Your task to perform on an android device: turn on javascript in the chrome app Image 0: 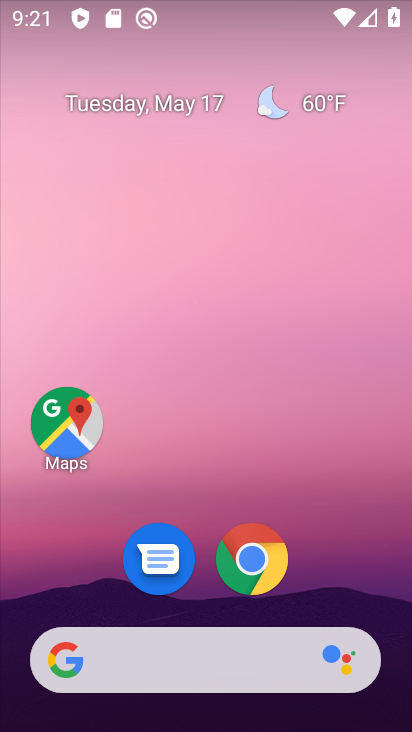
Step 0: click (256, 559)
Your task to perform on an android device: turn on javascript in the chrome app Image 1: 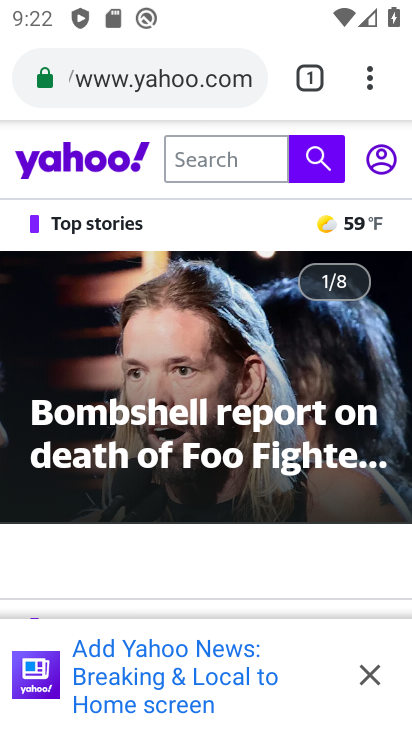
Step 1: drag from (374, 71) to (229, 604)
Your task to perform on an android device: turn on javascript in the chrome app Image 2: 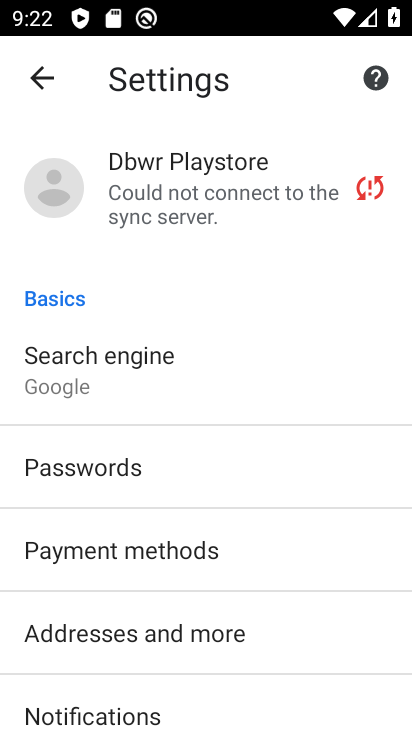
Step 2: drag from (231, 557) to (335, 126)
Your task to perform on an android device: turn on javascript in the chrome app Image 3: 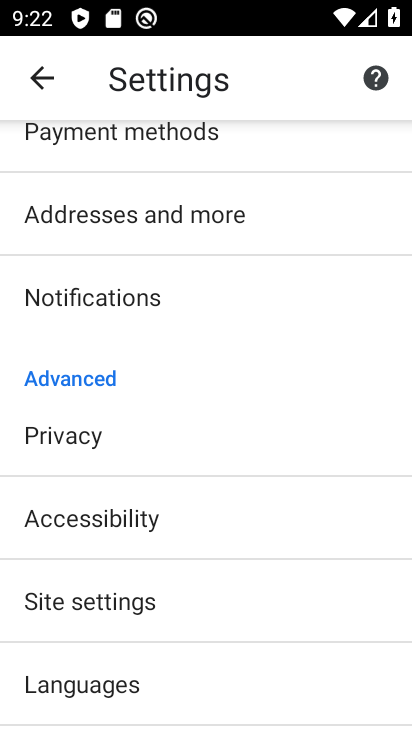
Step 3: drag from (195, 572) to (312, 200)
Your task to perform on an android device: turn on javascript in the chrome app Image 4: 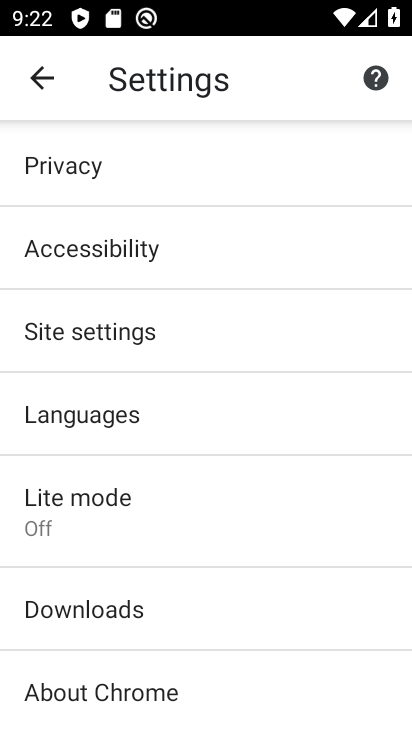
Step 4: click (143, 329)
Your task to perform on an android device: turn on javascript in the chrome app Image 5: 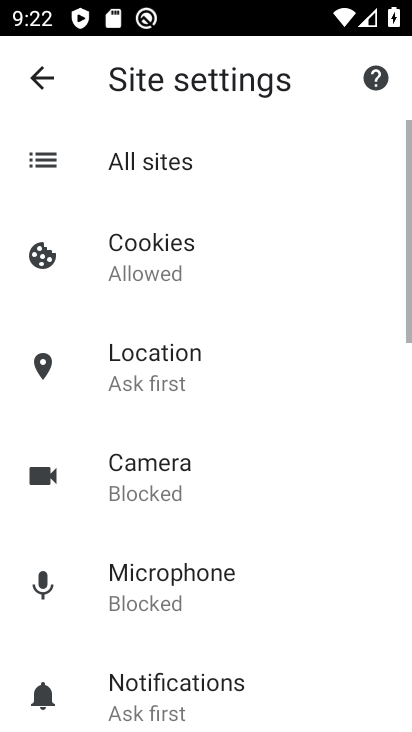
Step 5: drag from (239, 674) to (320, 273)
Your task to perform on an android device: turn on javascript in the chrome app Image 6: 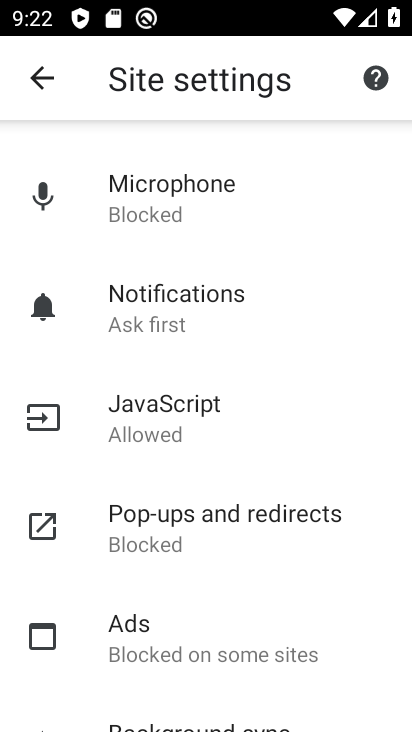
Step 6: click (188, 428)
Your task to perform on an android device: turn on javascript in the chrome app Image 7: 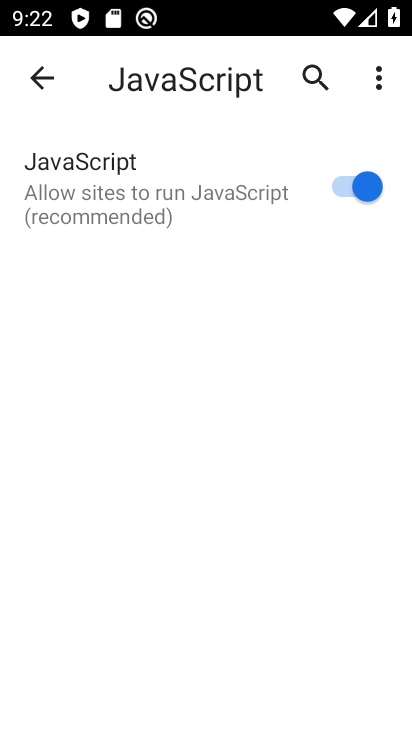
Step 7: task complete